Your task to perform on an android device: open app "Nova Launcher" (install if not already installed) Image 0: 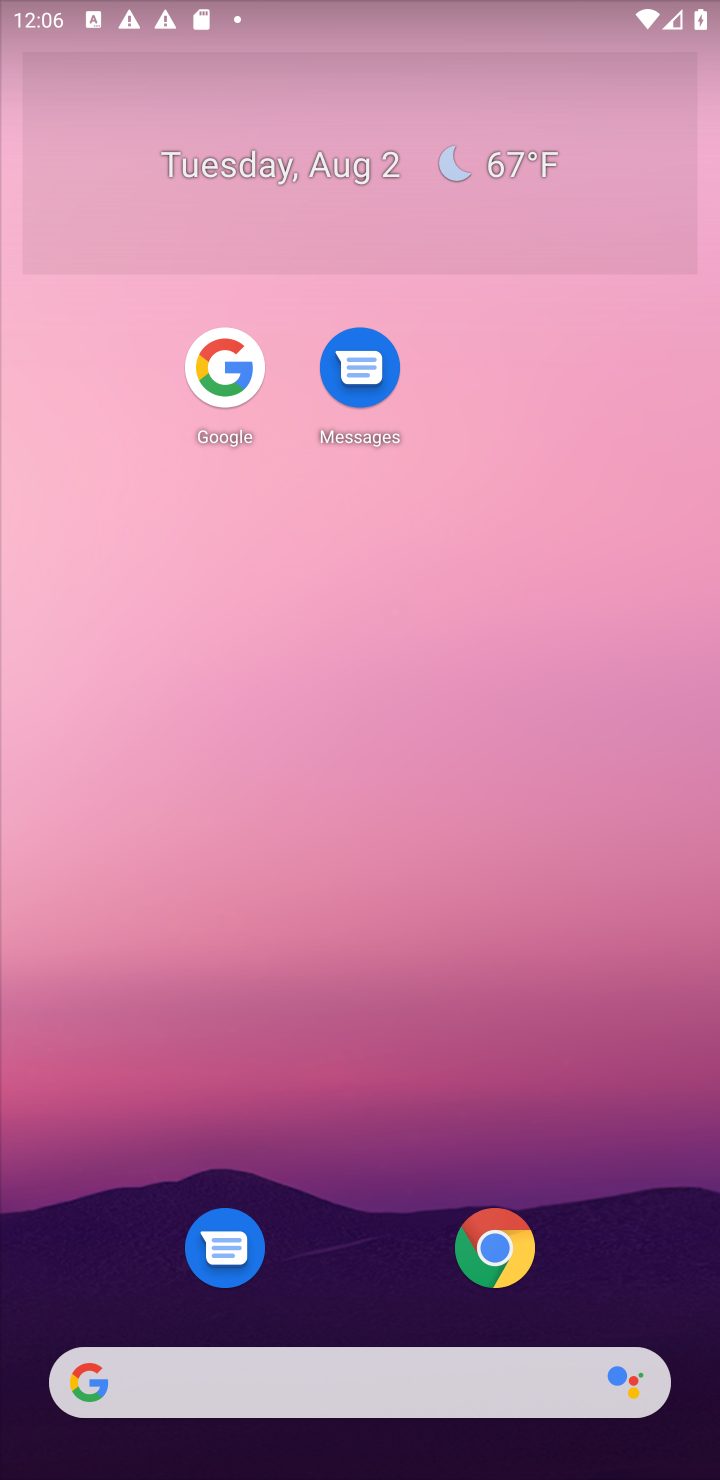
Step 0: drag from (603, 1144) to (632, 355)
Your task to perform on an android device: open app "Nova Launcher" (install if not already installed) Image 1: 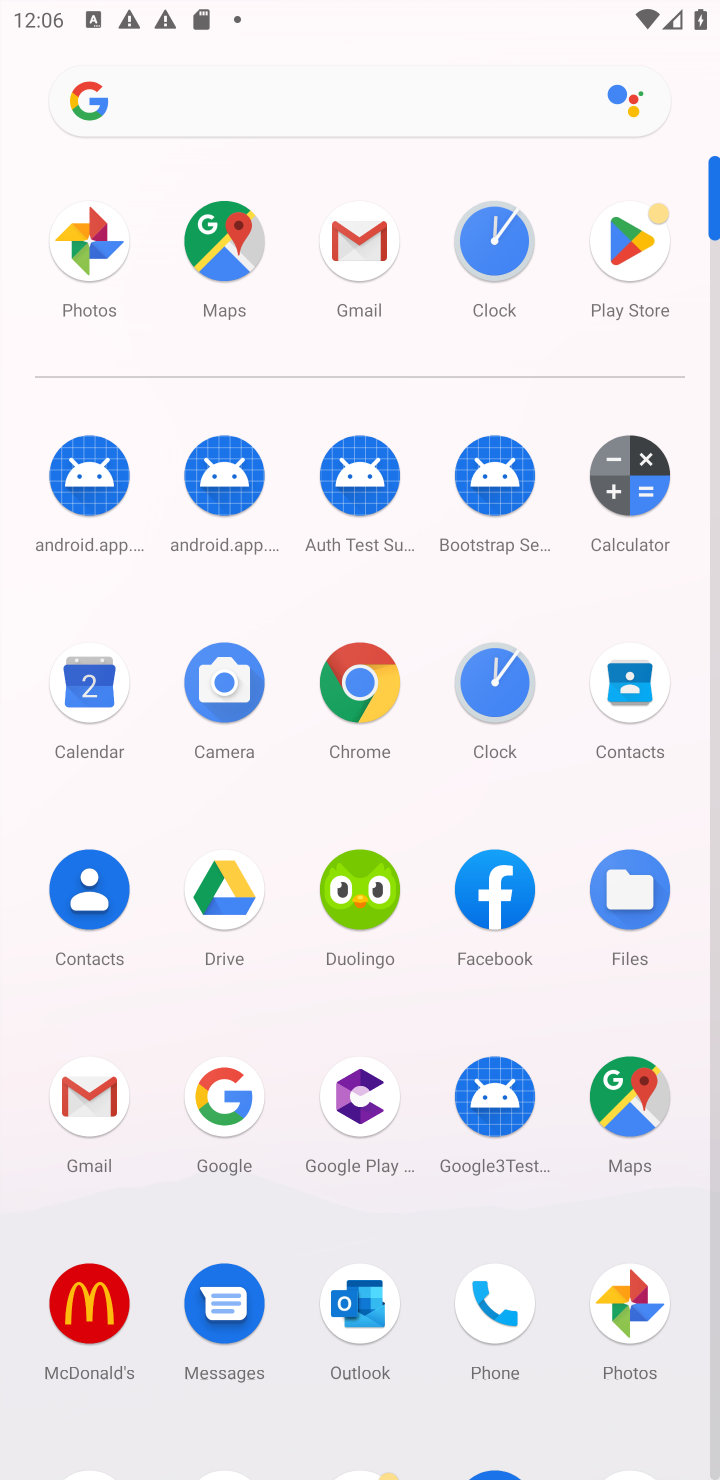
Step 1: drag from (442, 1185) to (430, 682)
Your task to perform on an android device: open app "Nova Launcher" (install if not already installed) Image 2: 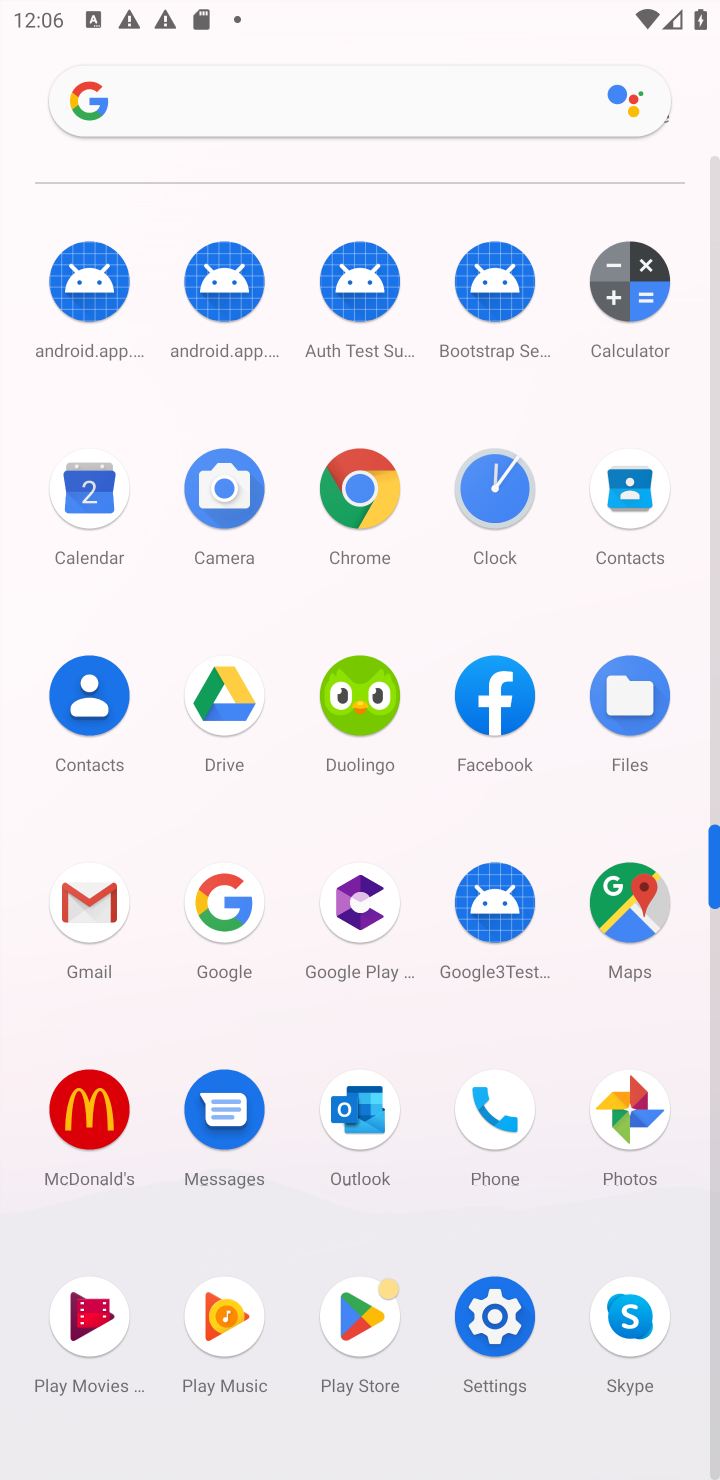
Step 2: click (362, 1298)
Your task to perform on an android device: open app "Nova Launcher" (install if not already installed) Image 3: 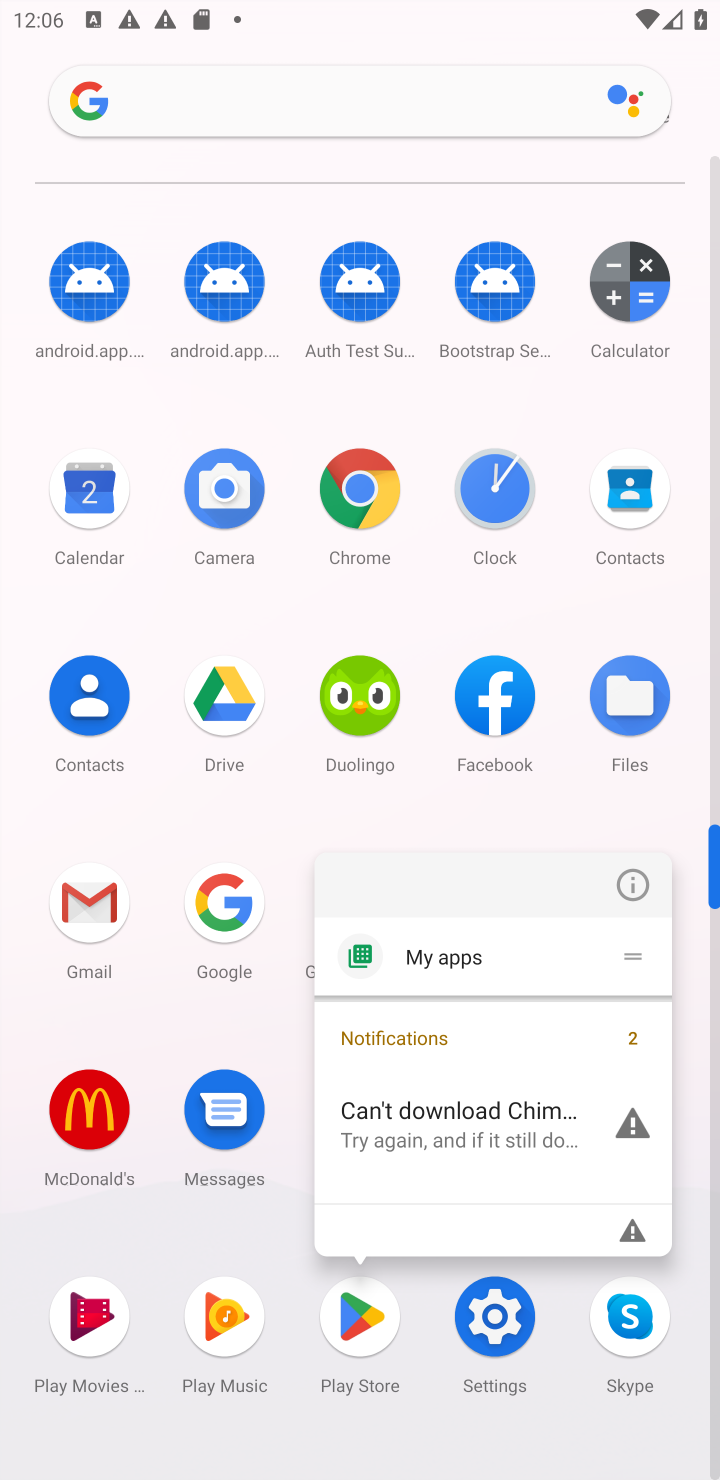
Step 3: click (362, 1298)
Your task to perform on an android device: open app "Nova Launcher" (install if not already installed) Image 4: 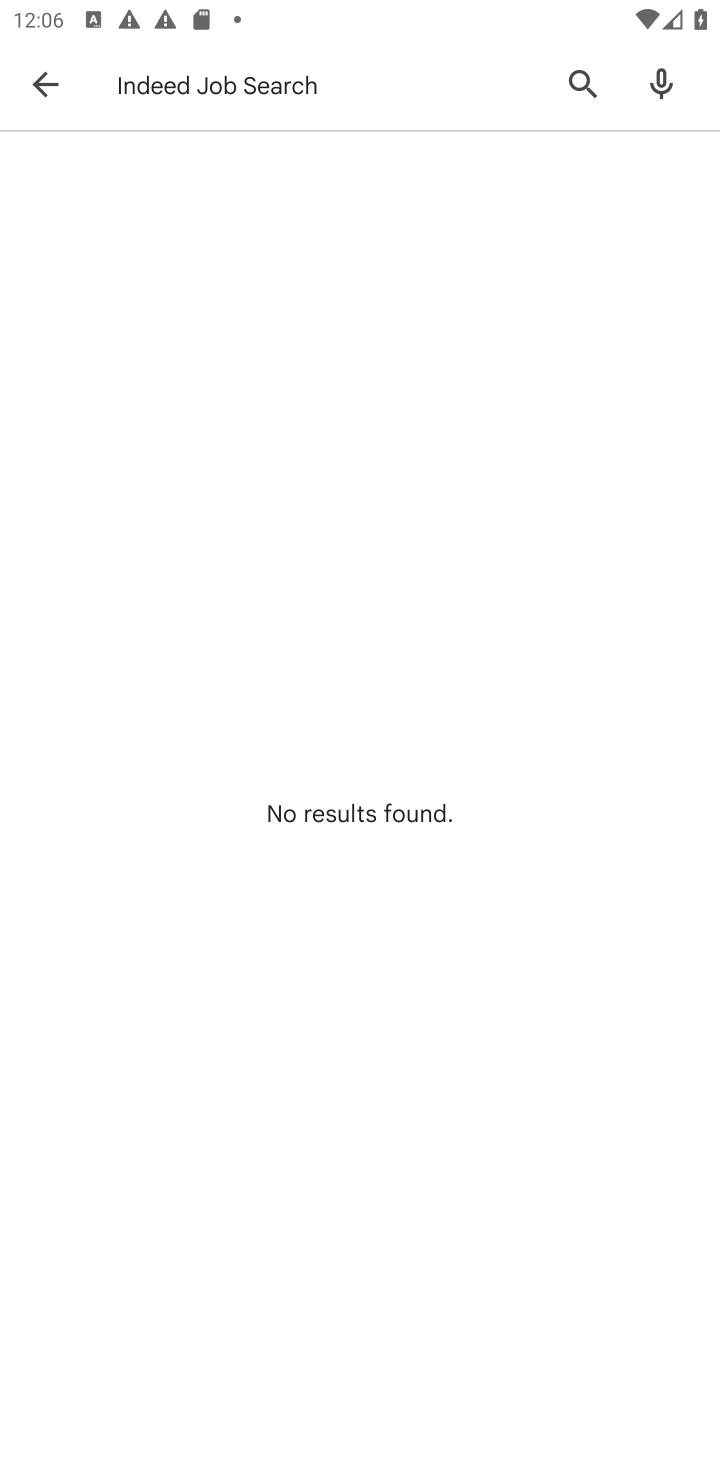
Step 4: click (296, 74)
Your task to perform on an android device: open app "Nova Launcher" (install if not already installed) Image 5: 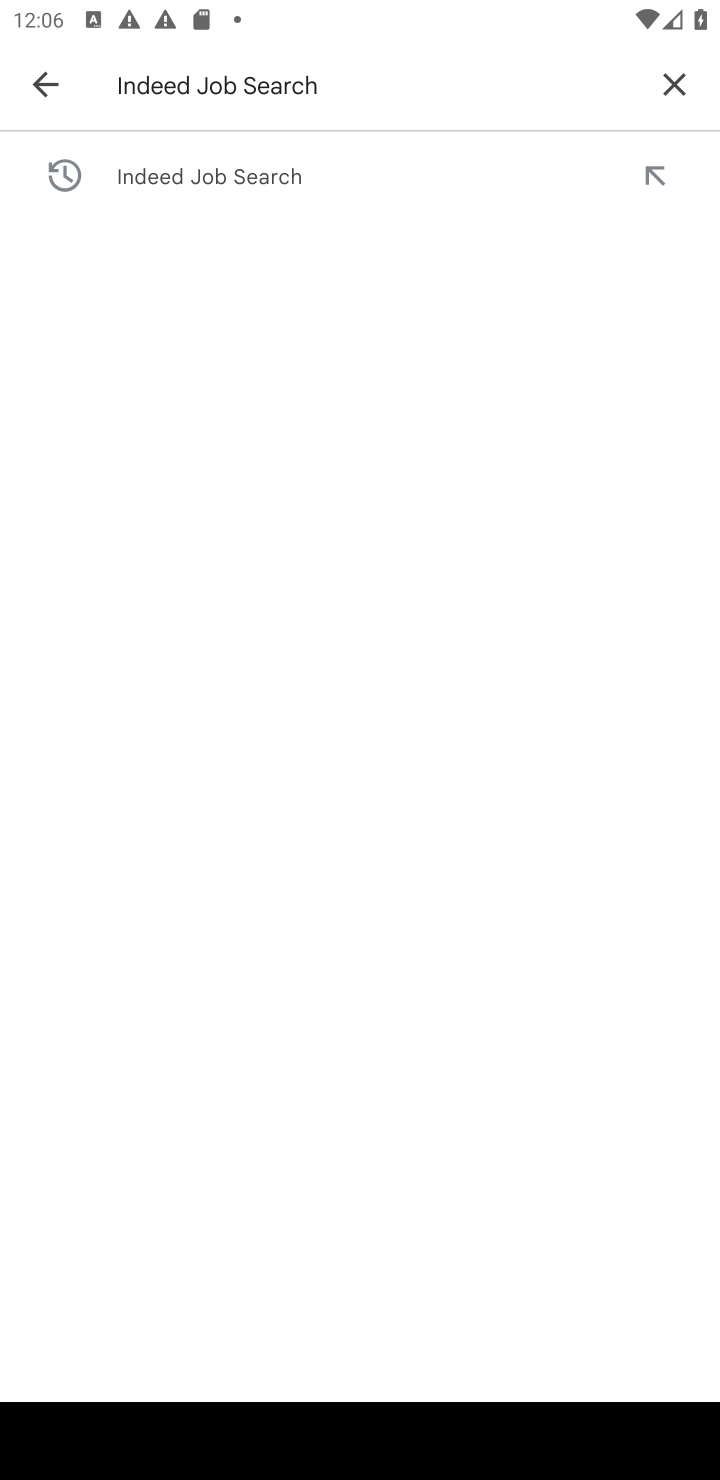
Step 5: click (681, 86)
Your task to perform on an android device: open app "Nova Launcher" (install if not already installed) Image 6: 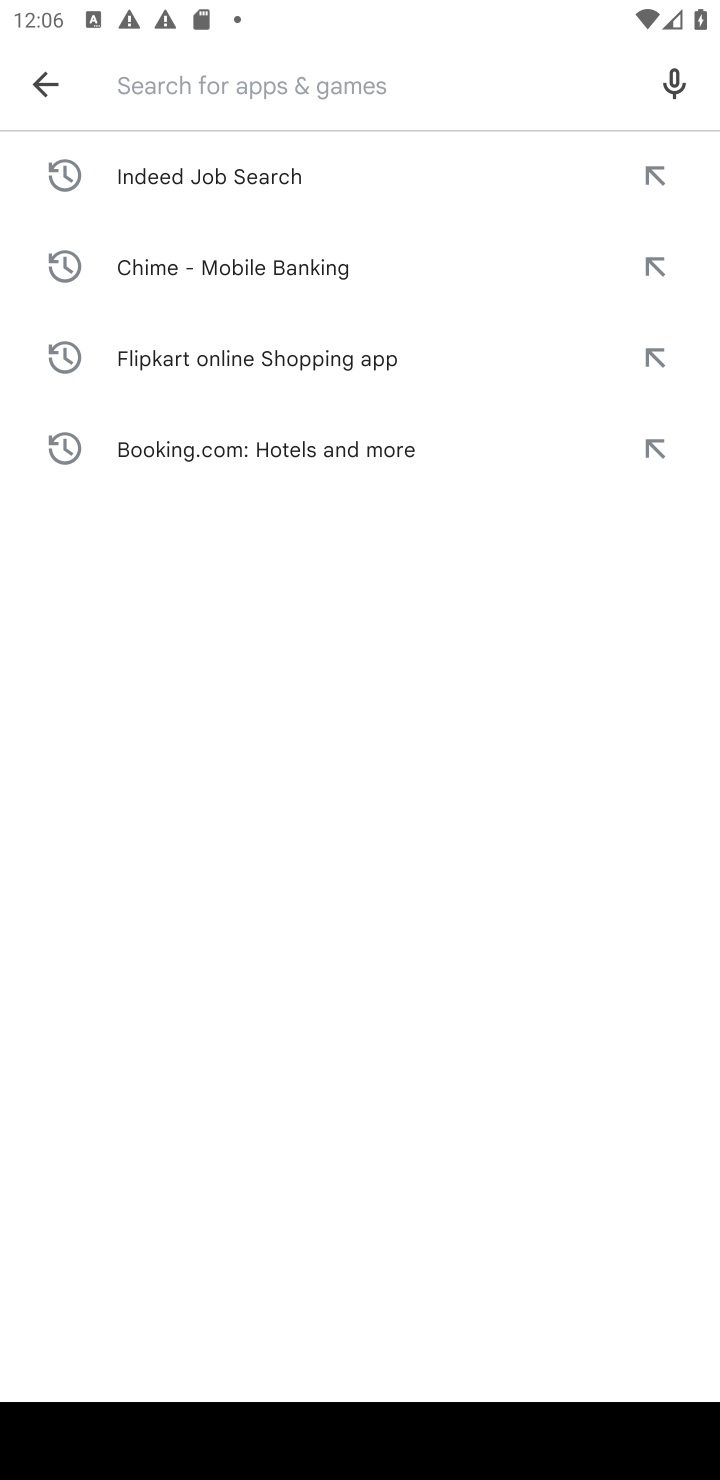
Step 6: type "Nova Launcher"
Your task to perform on an android device: open app "Nova Launcher" (install if not already installed) Image 7: 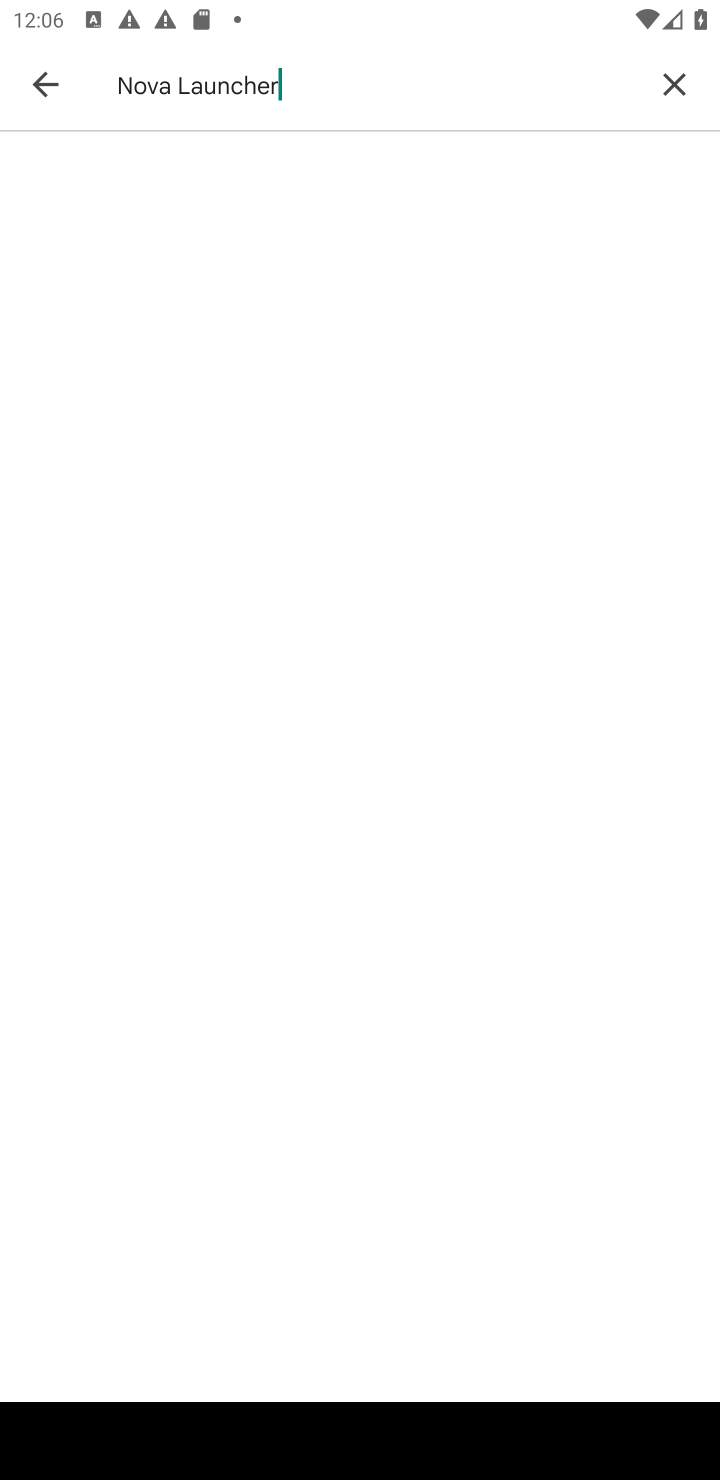
Step 7: press enter
Your task to perform on an android device: open app "Nova Launcher" (install if not already installed) Image 8: 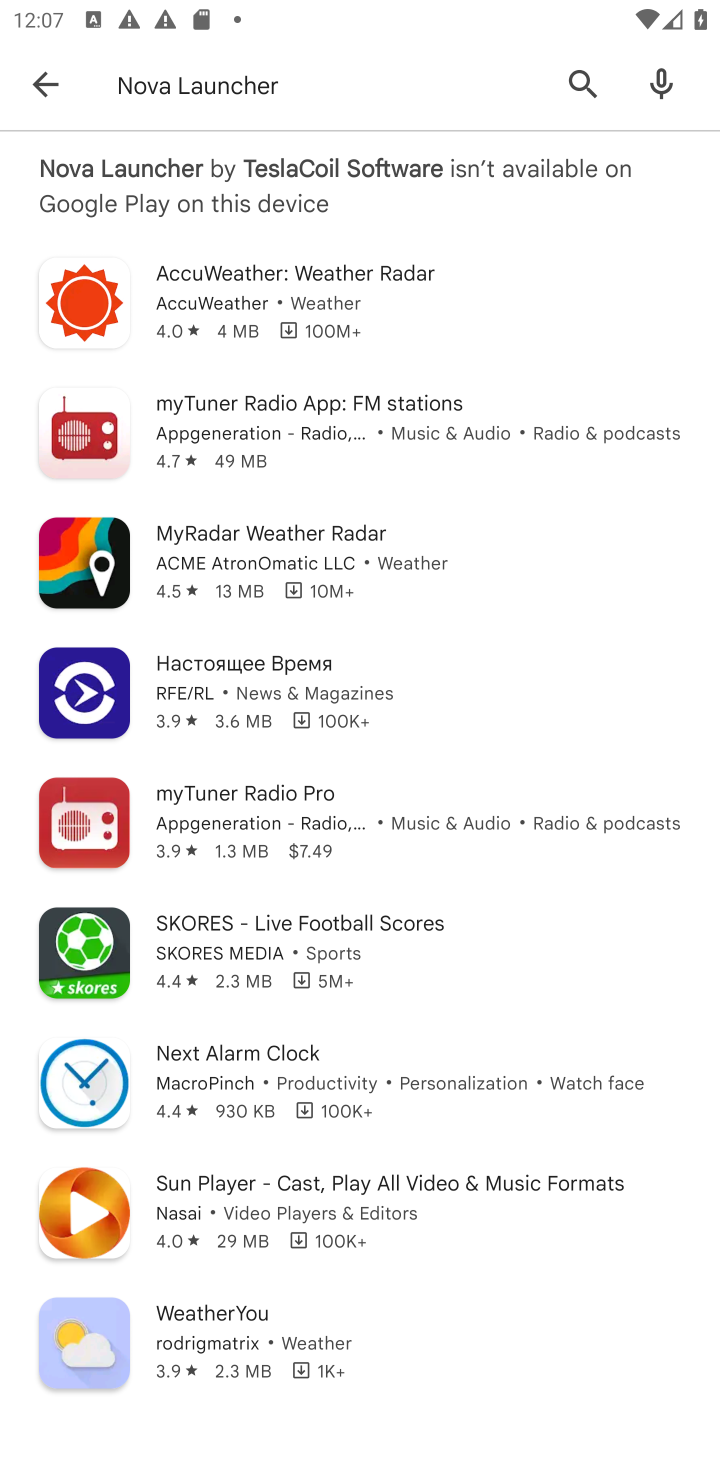
Step 8: task complete